Your task to perform on an android device: Open Youtube and go to "Your channel" Image 0: 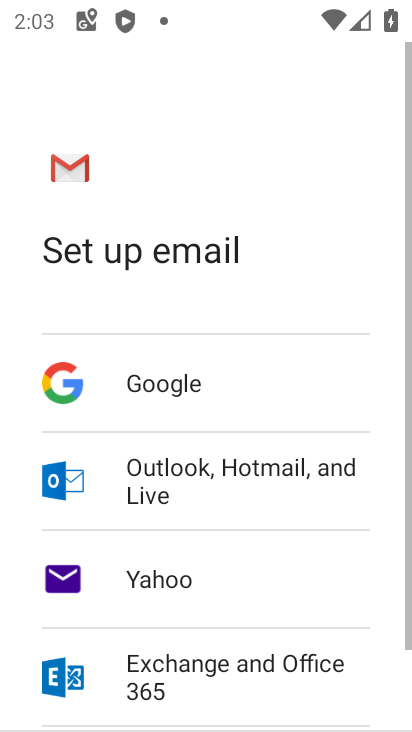
Step 0: press home button
Your task to perform on an android device: Open Youtube and go to "Your channel" Image 1: 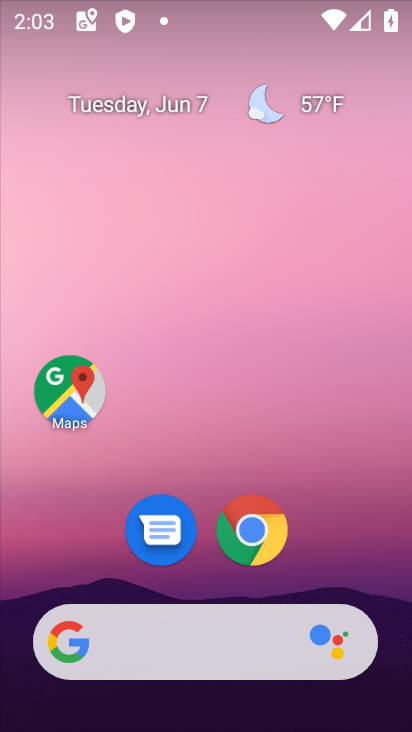
Step 1: drag from (305, 560) to (332, 38)
Your task to perform on an android device: Open Youtube and go to "Your channel" Image 2: 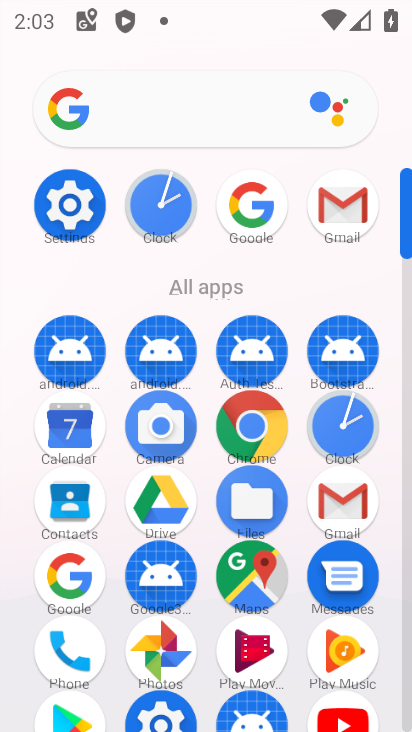
Step 2: drag from (295, 667) to (361, 251)
Your task to perform on an android device: Open Youtube and go to "Your channel" Image 3: 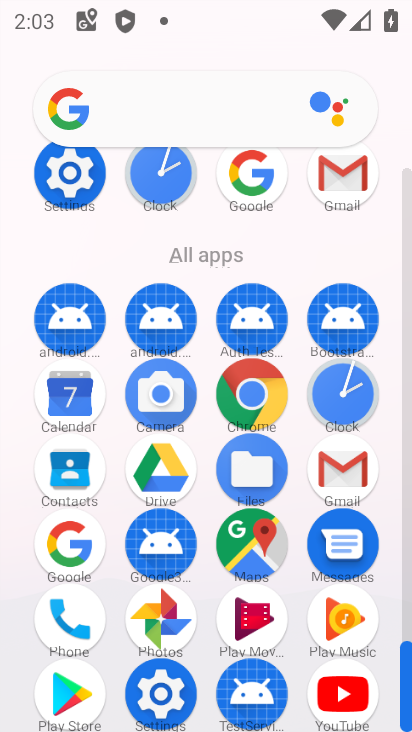
Step 3: click (355, 688)
Your task to perform on an android device: Open Youtube and go to "Your channel" Image 4: 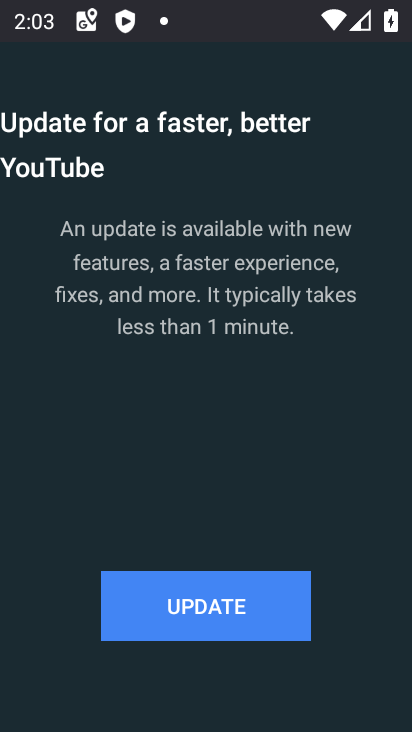
Step 4: click (209, 611)
Your task to perform on an android device: Open Youtube and go to "Your channel" Image 5: 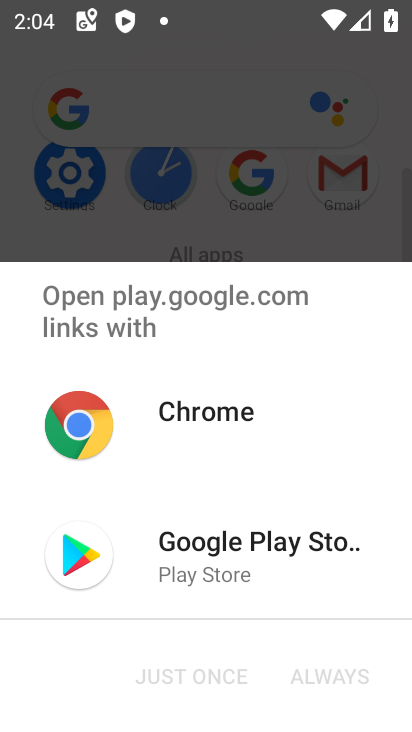
Step 5: click (175, 552)
Your task to perform on an android device: Open Youtube and go to "Your channel" Image 6: 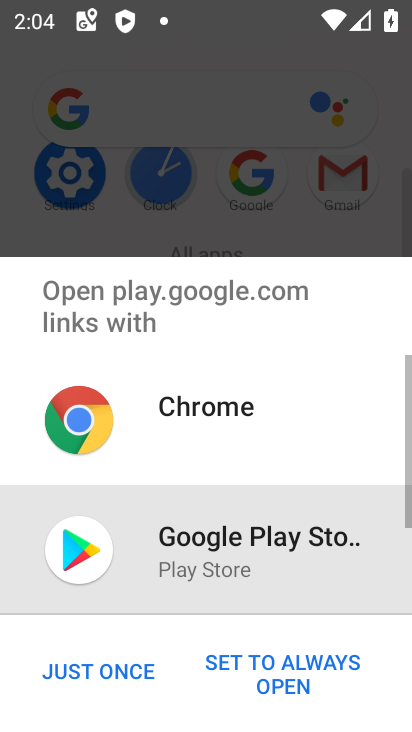
Step 6: click (131, 664)
Your task to perform on an android device: Open Youtube and go to "Your channel" Image 7: 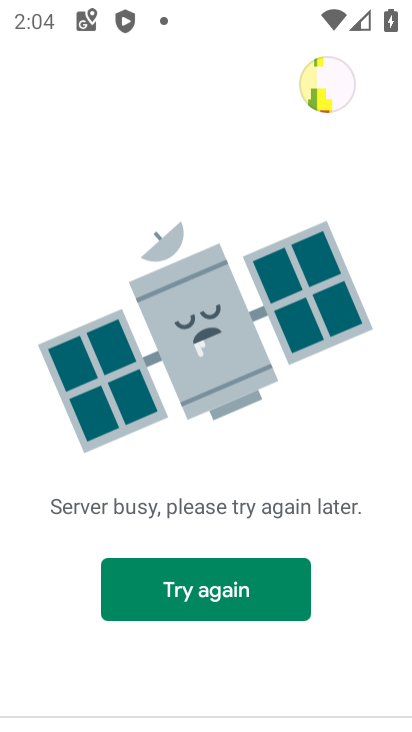
Step 7: task complete